Your task to perform on an android device: Clear the cart on ebay. Image 0: 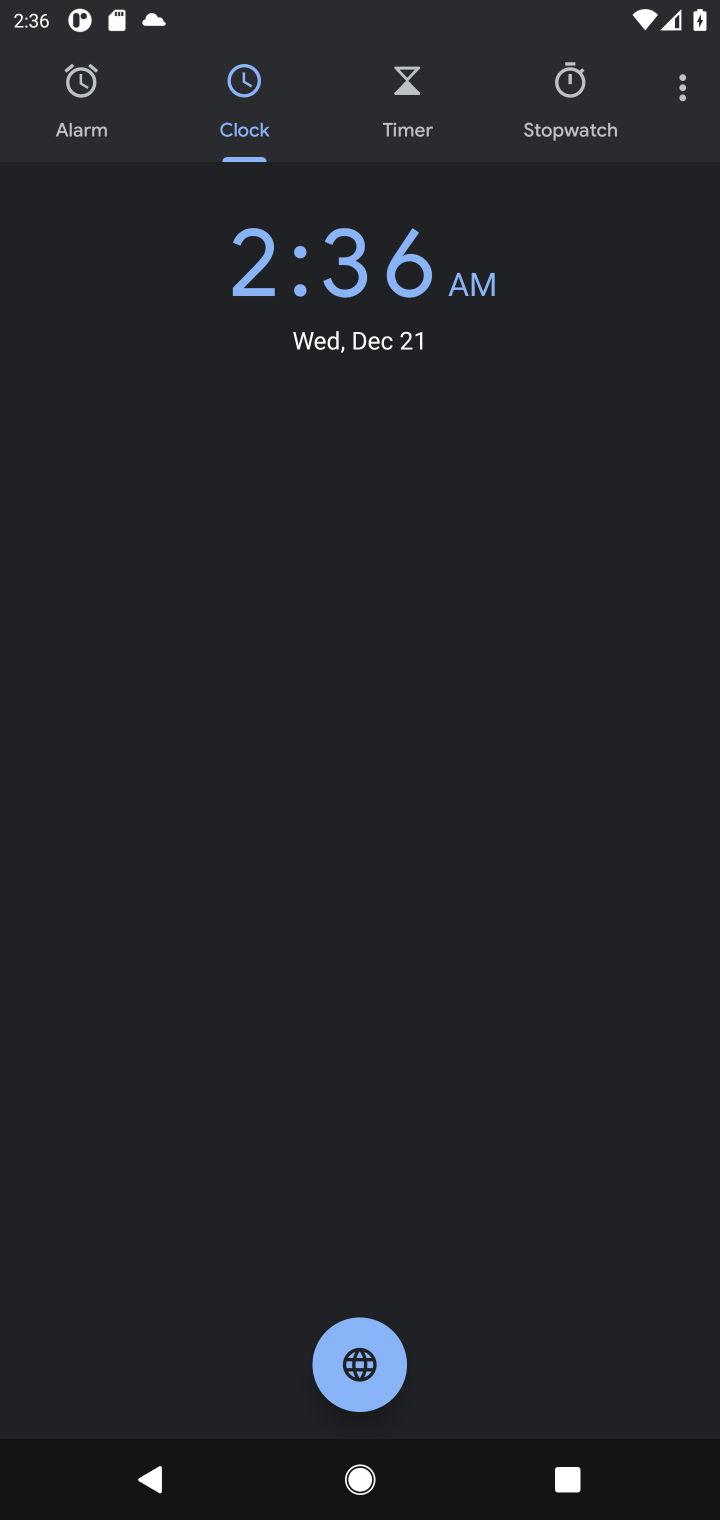
Step 0: press home button
Your task to perform on an android device: Clear the cart on ebay. Image 1: 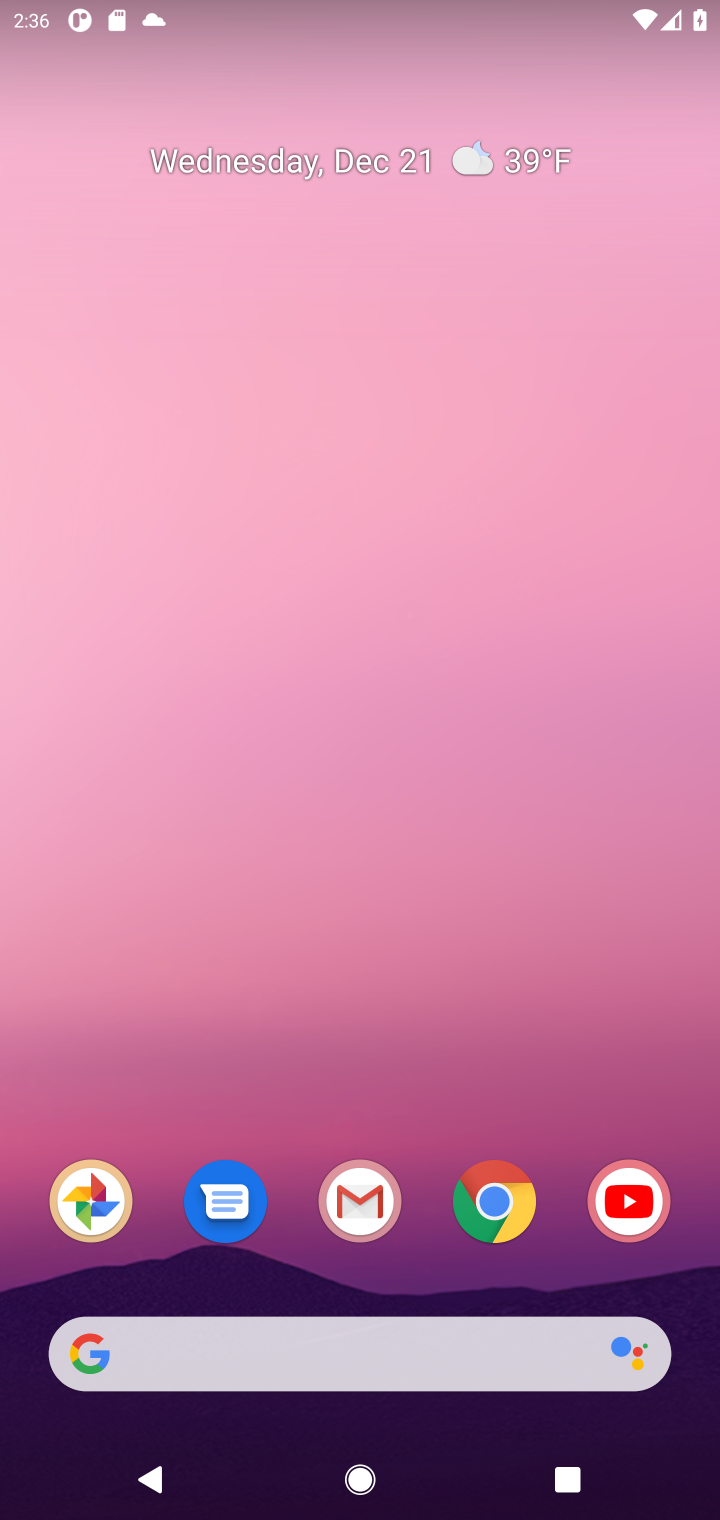
Step 1: click (494, 1199)
Your task to perform on an android device: Clear the cart on ebay. Image 2: 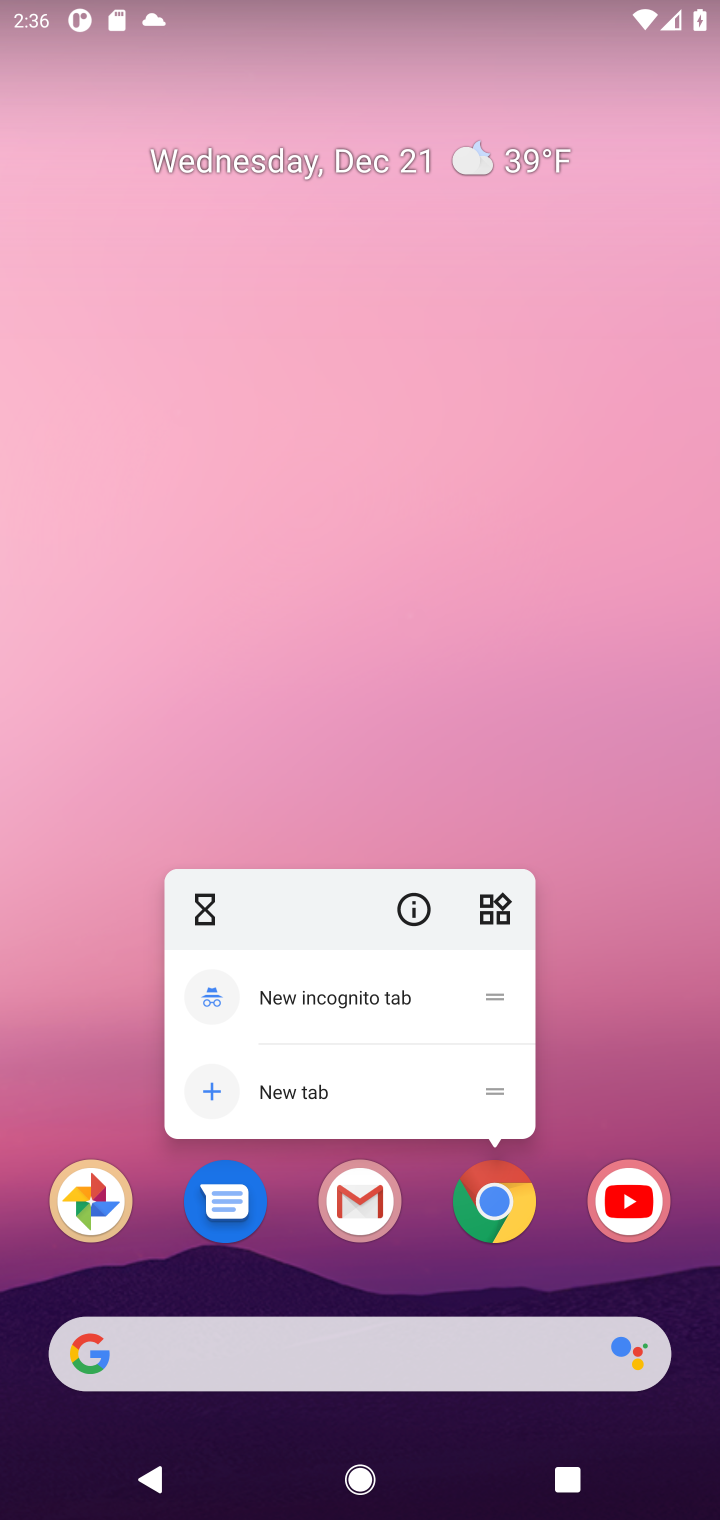
Step 2: click (494, 1201)
Your task to perform on an android device: Clear the cart on ebay. Image 3: 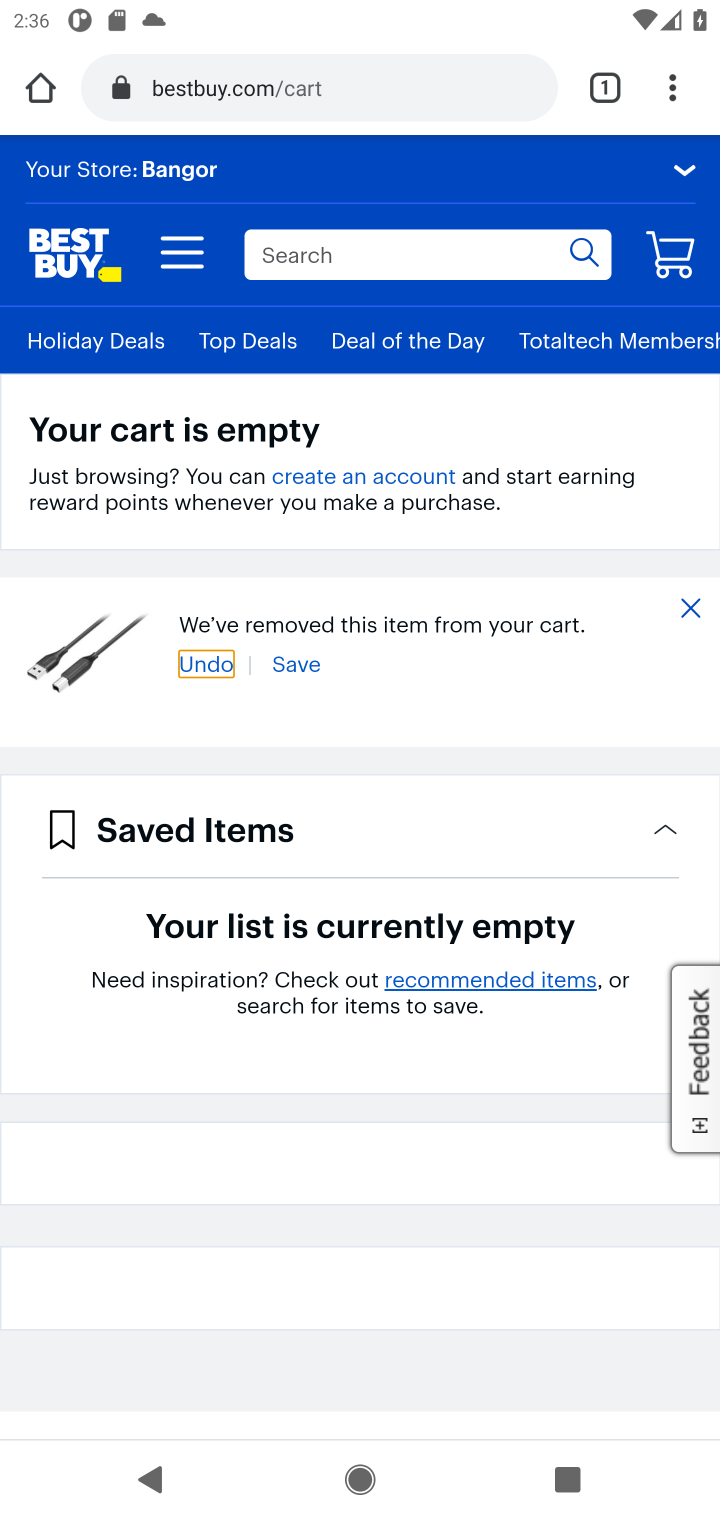
Step 3: click (278, 92)
Your task to perform on an android device: Clear the cart on ebay. Image 4: 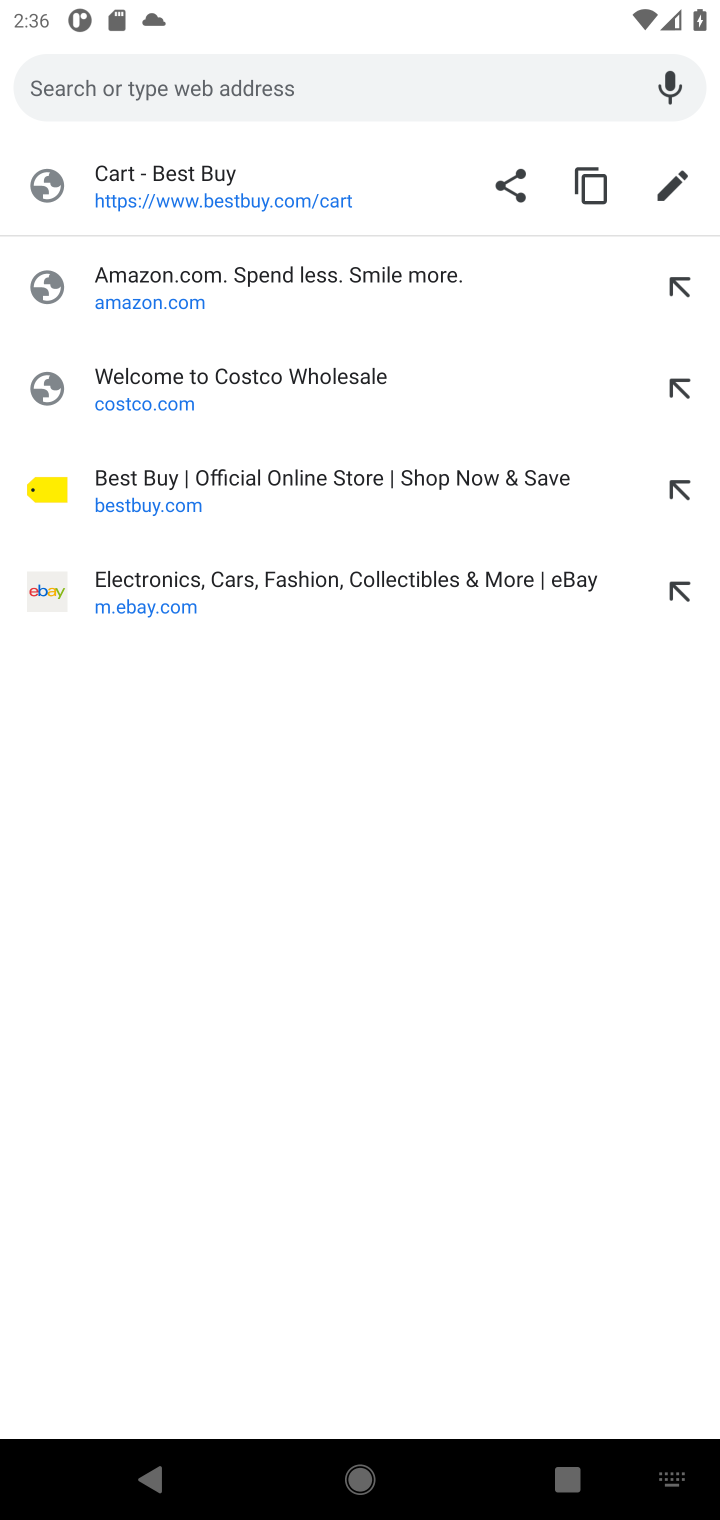
Step 4: click (132, 592)
Your task to perform on an android device: Clear the cart on ebay. Image 5: 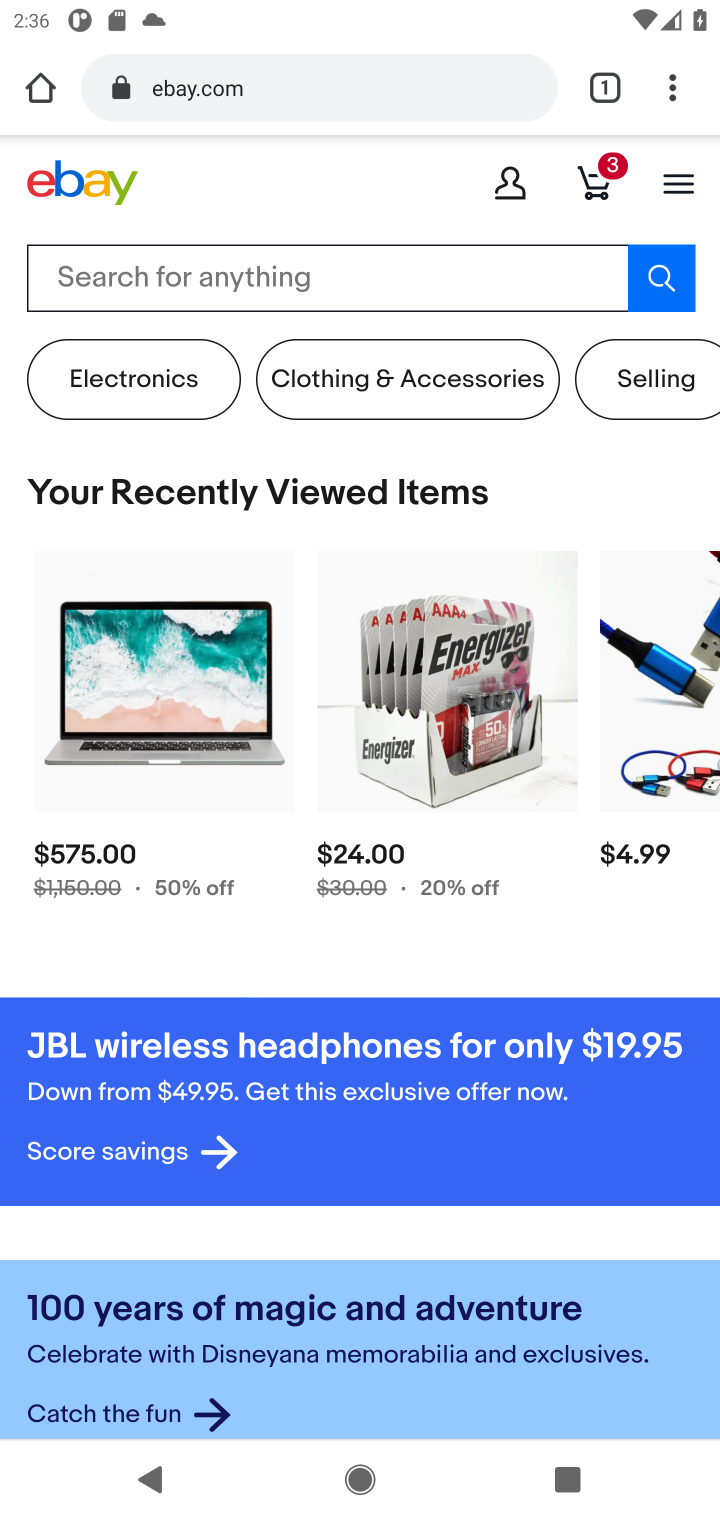
Step 5: click (601, 179)
Your task to perform on an android device: Clear the cart on ebay. Image 6: 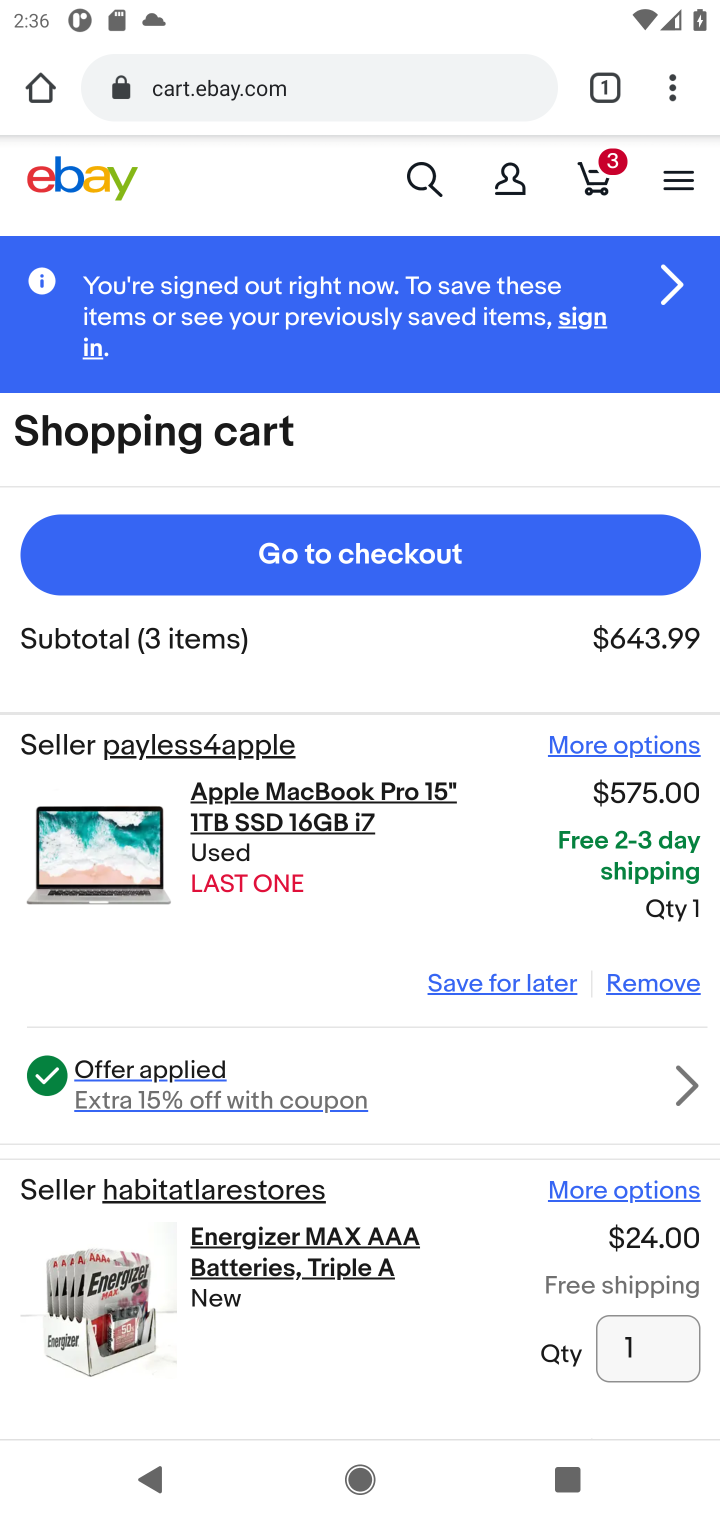
Step 6: click (640, 982)
Your task to perform on an android device: Clear the cart on ebay. Image 7: 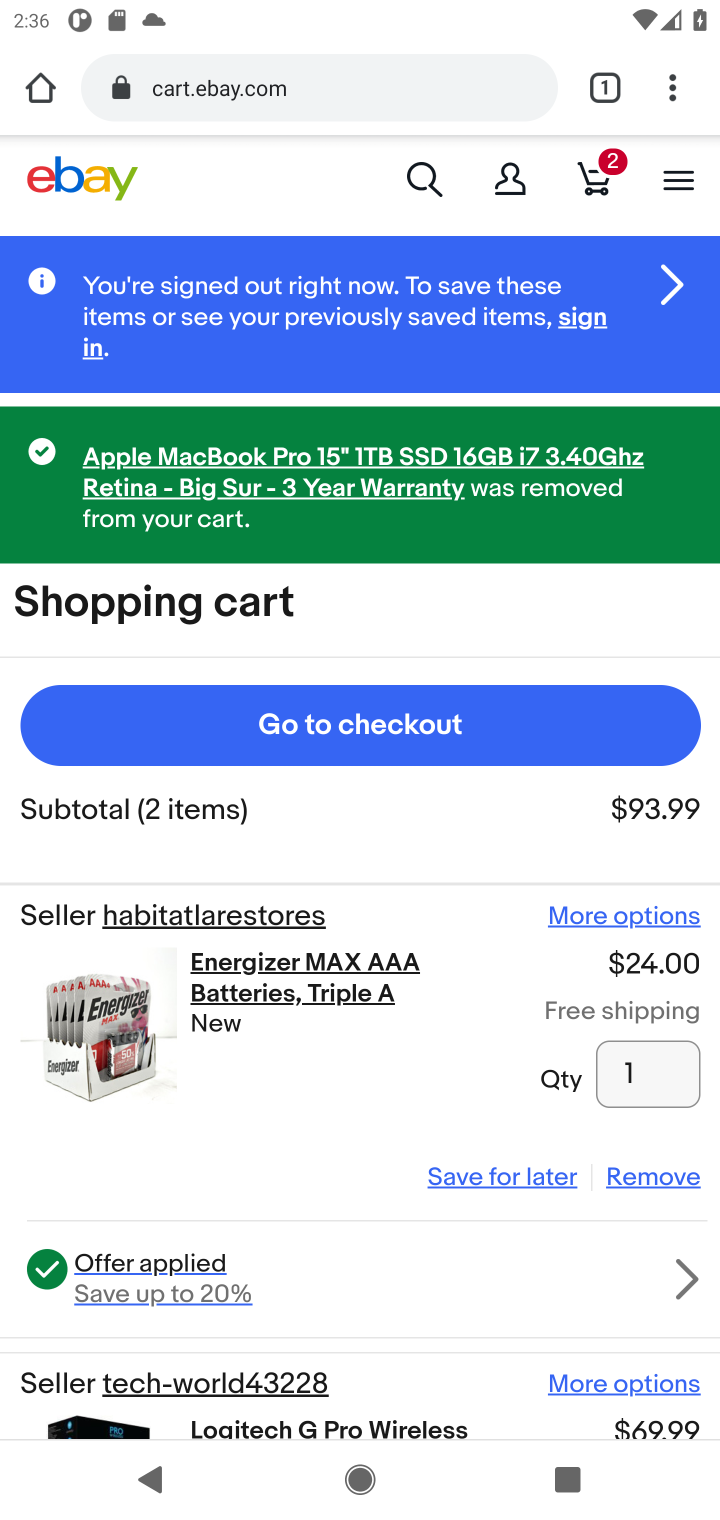
Step 7: click (647, 1180)
Your task to perform on an android device: Clear the cart on ebay. Image 8: 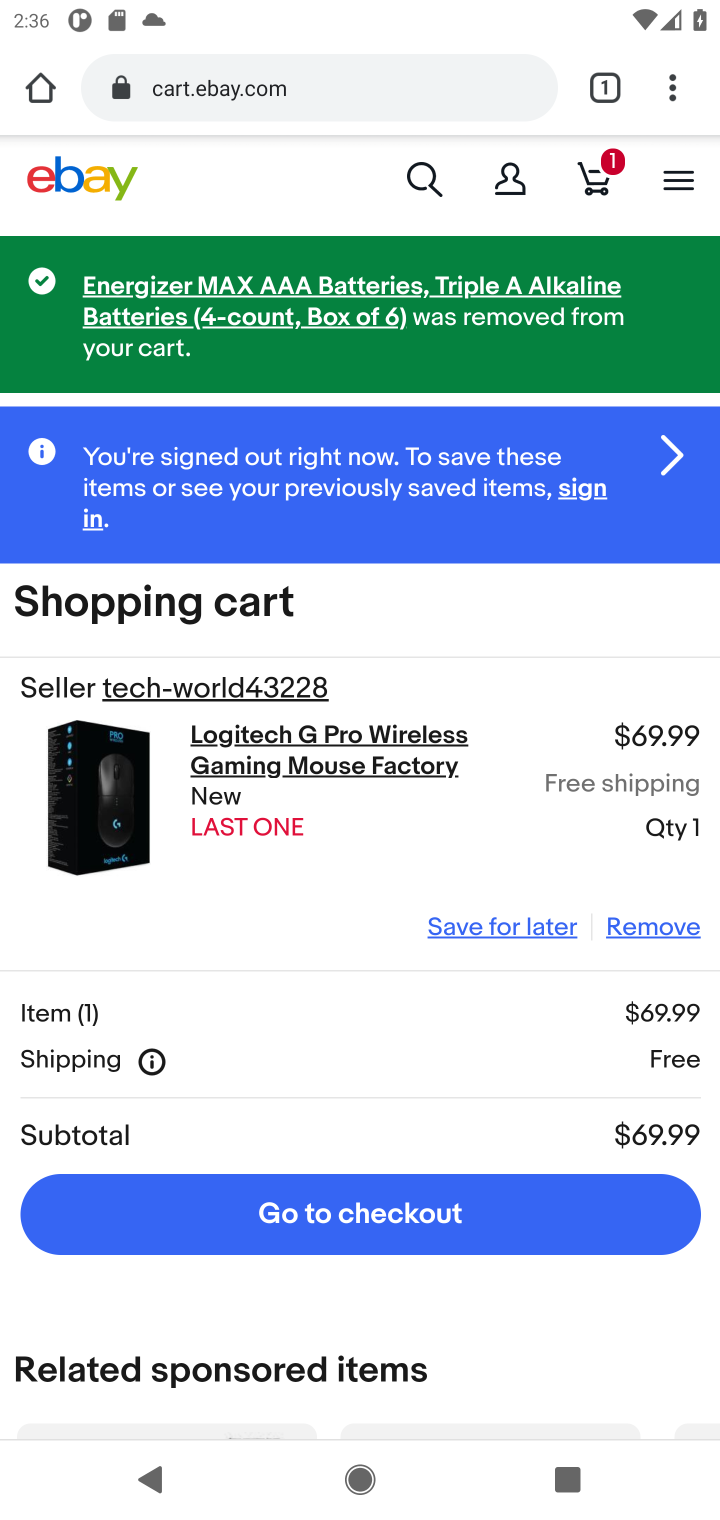
Step 8: click (669, 924)
Your task to perform on an android device: Clear the cart on ebay. Image 9: 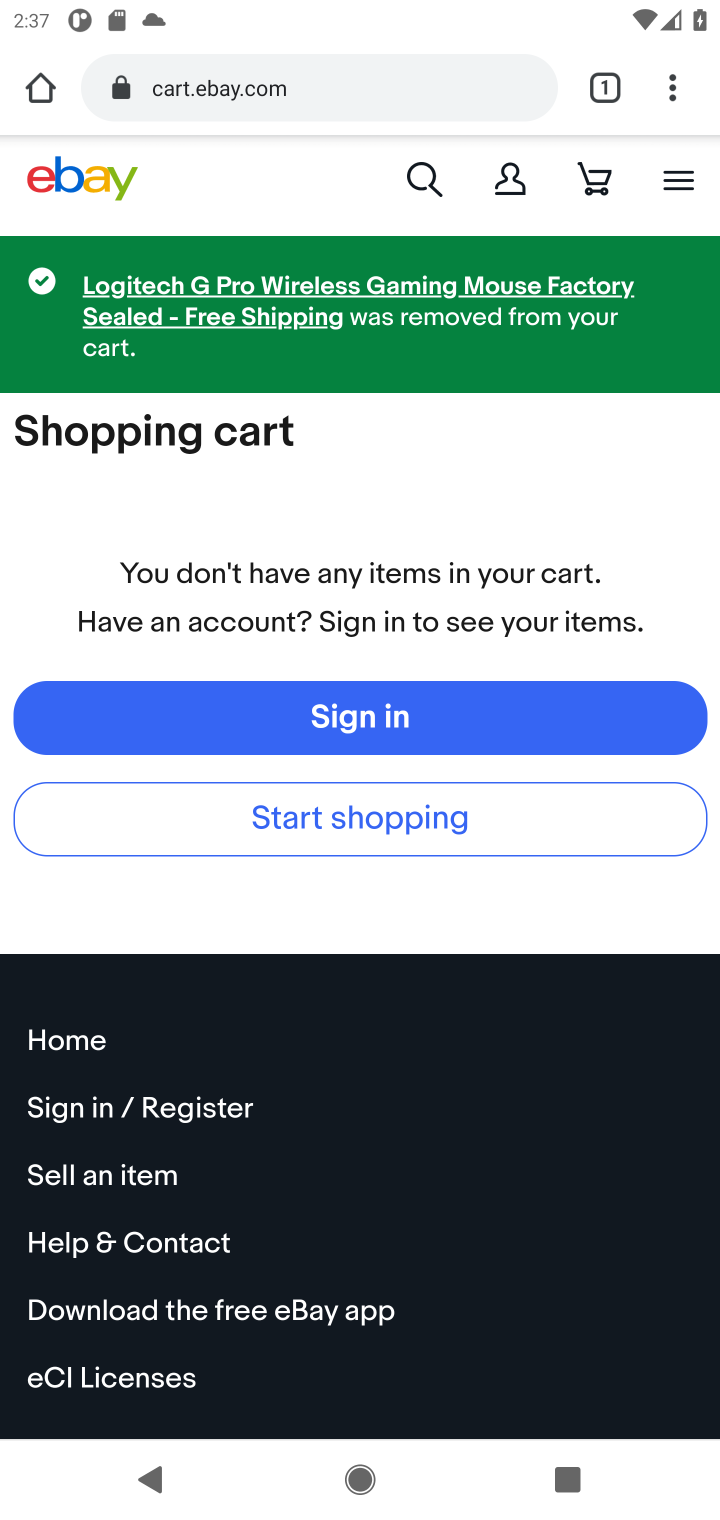
Step 9: task complete